Your task to perform on an android device: What's the weather going to be tomorrow? Image 0: 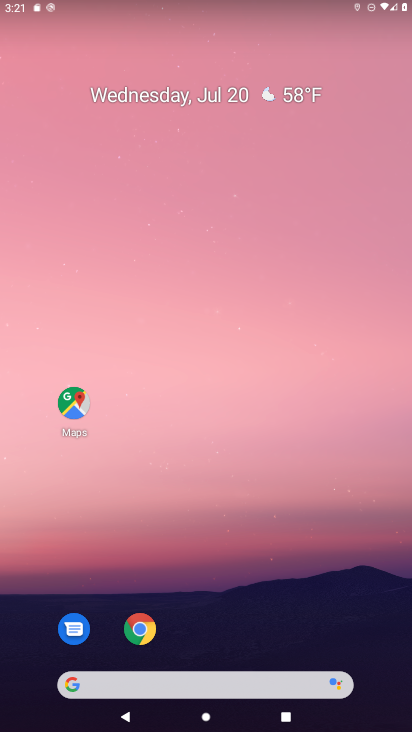
Step 0: drag from (200, 607) to (322, 94)
Your task to perform on an android device: What's the weather going to be tomorrow? Image 1: 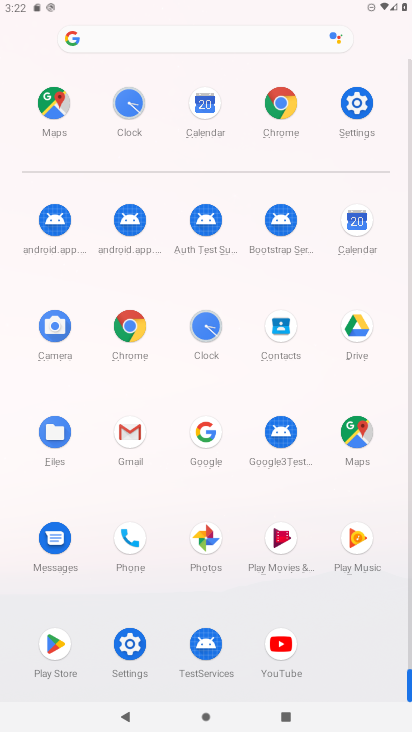
Step 1: click (129, 328)
Your task to perform on an android device: What's the weather going to be tomorrow? Image 2: 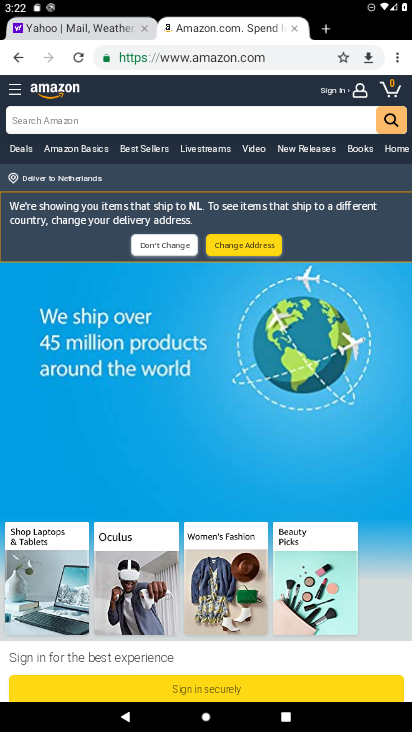
Step 2: click (243, 52)
Your task to perform on an android device: What's the weather going to be tomorrow? Image 3: 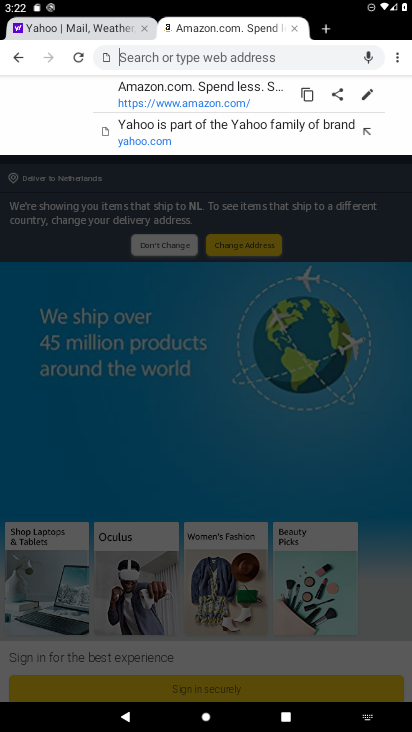
Step 3: type "What's the weather going to be tomorrow?"
Your task to perform on an android device: What's the weather going to be tomorrow? Image 4: 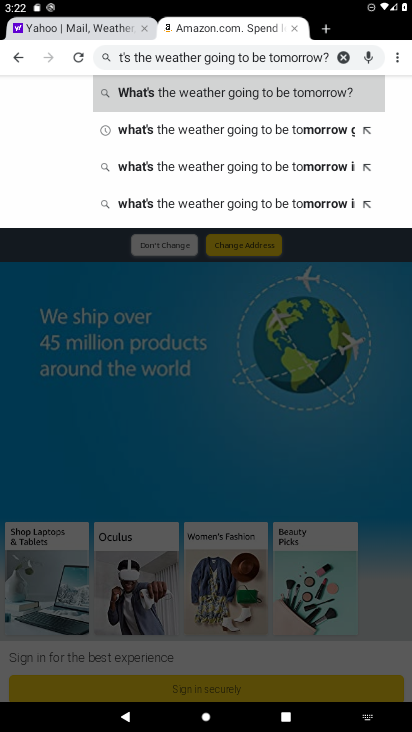
Step 4: click (188, 93)
Your task to perform on an android device: What's the weather going to be tomorrow? Image 5: 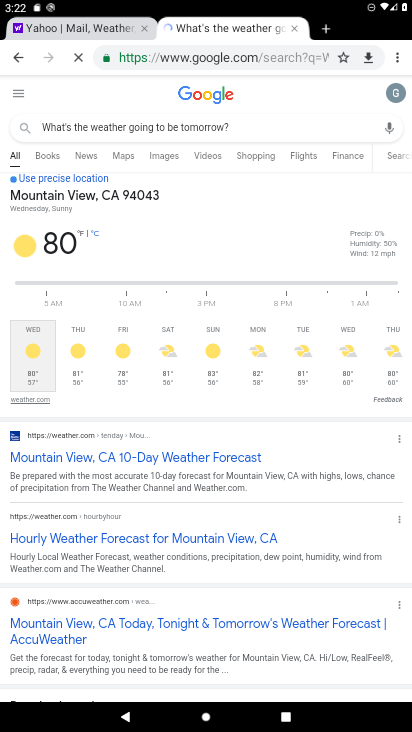
Step 5: task complete